Your task to perform on an android device: Go to Maps Image 0: 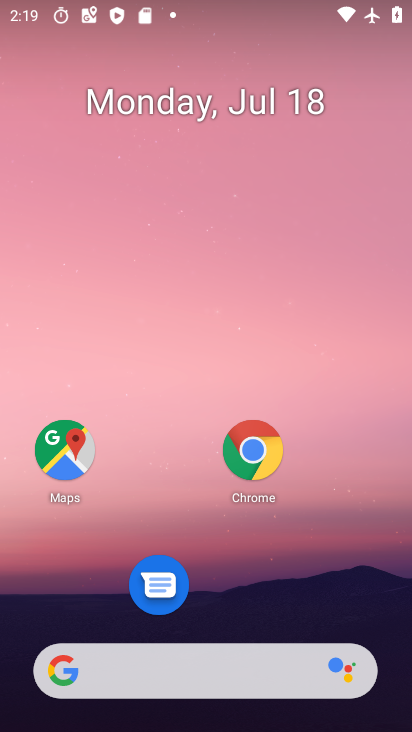
Step 0: click (67, 449)
Your task to perform on an android device: Go to Maps Image 1: 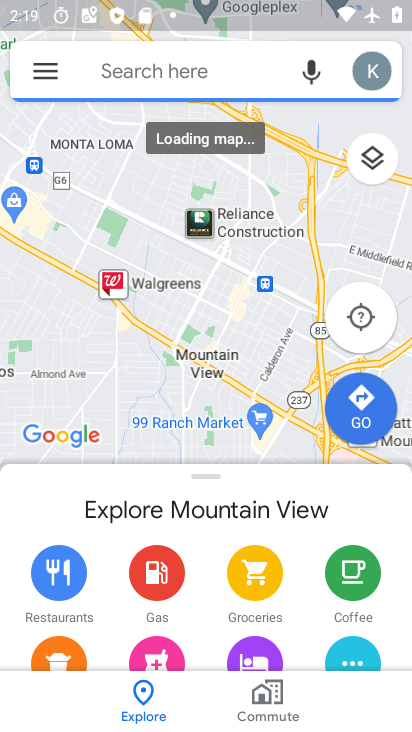
Step 1: task complete